Your task to perform on an android device: turn off javascript in the chrome app Image 0: 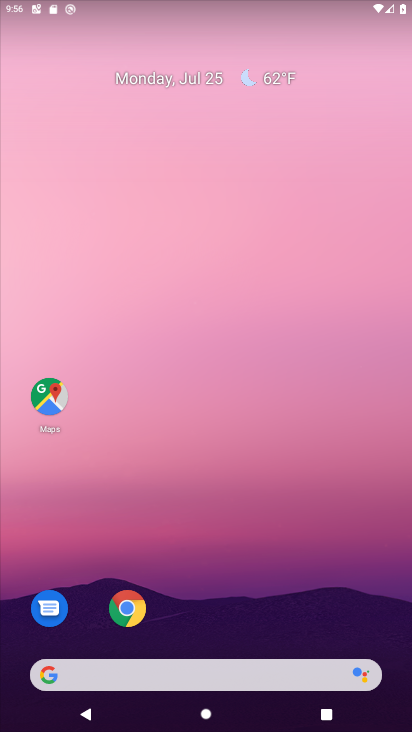
Step 0: press home button
Your task to perform on an android device: turn off javascript in the chrome app Image 1: 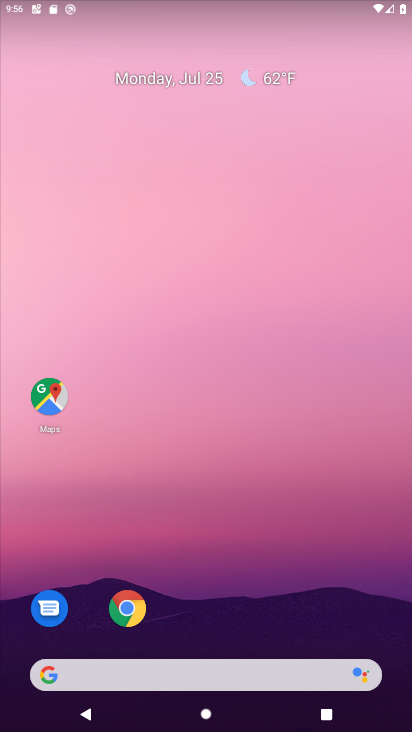
Step 1: click (120, 605)
Your task to perform on an android device: turn off javascript in the chrome app Image 2: 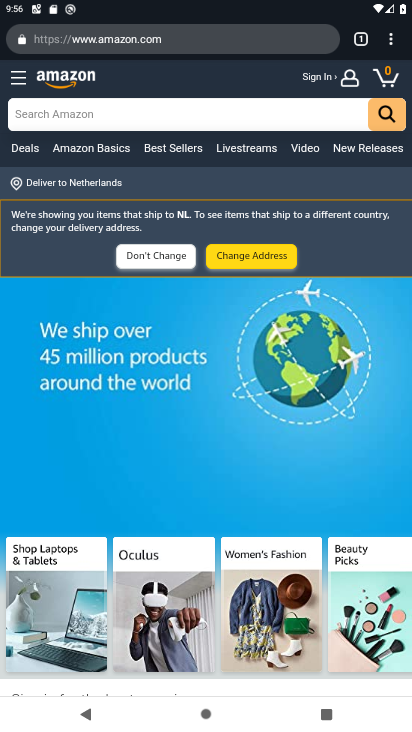
Step 2: click (392, 40)
Your task to perform on an android device: turn off javascript in the chrome app Image 3: 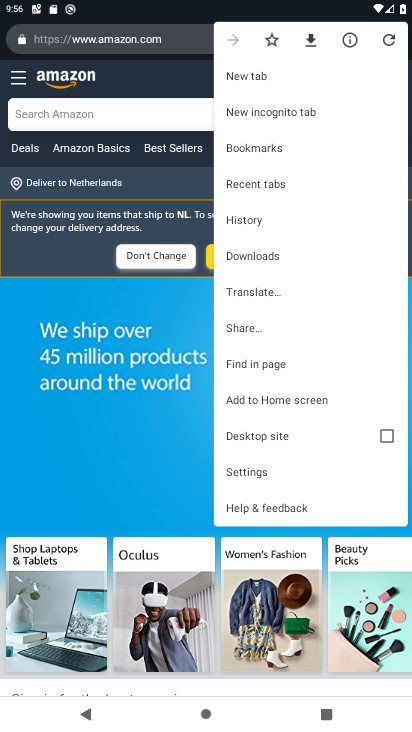
Step 3: click (271, 468)
Your task to perform on an android device: turn off javascript in the chrome app Image 4: 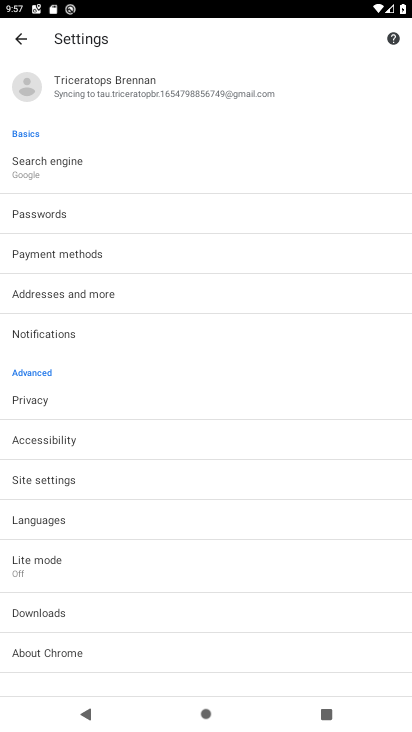
Step 4: click (84, 478)
Your task to perform on an android device: turn off javascript in the chrome app Image 5: 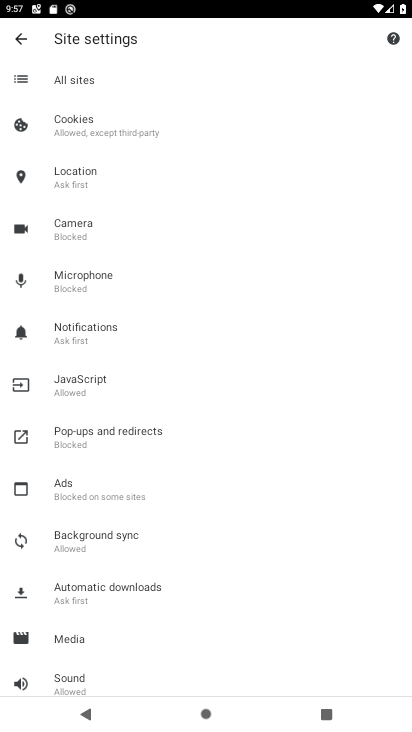
Step 5: click (123, 388)
Your task to perform on an android device: turn off javascript in the chrome app Image 6: 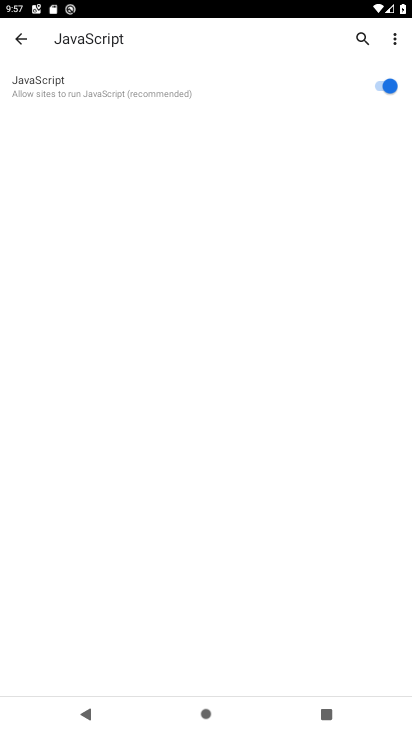
Step 6: click (380, 94)
Your task to perform on an android device: turn off javascript in the chrome app Image 7: 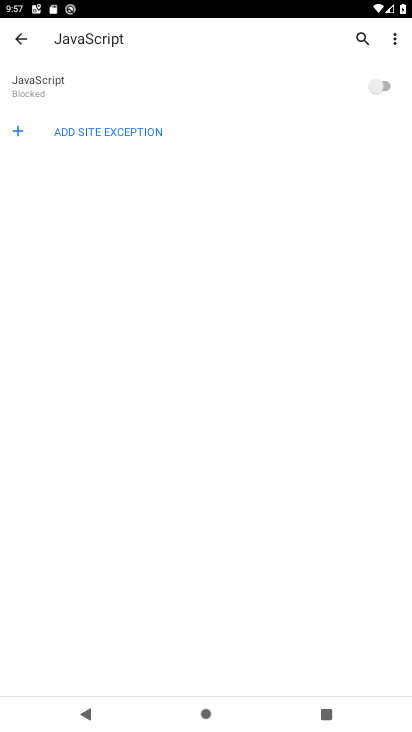
Step 7: task complete